Your task to perform on an android device: open app "Indeed Job Search" (install if not already installed) Image 0: 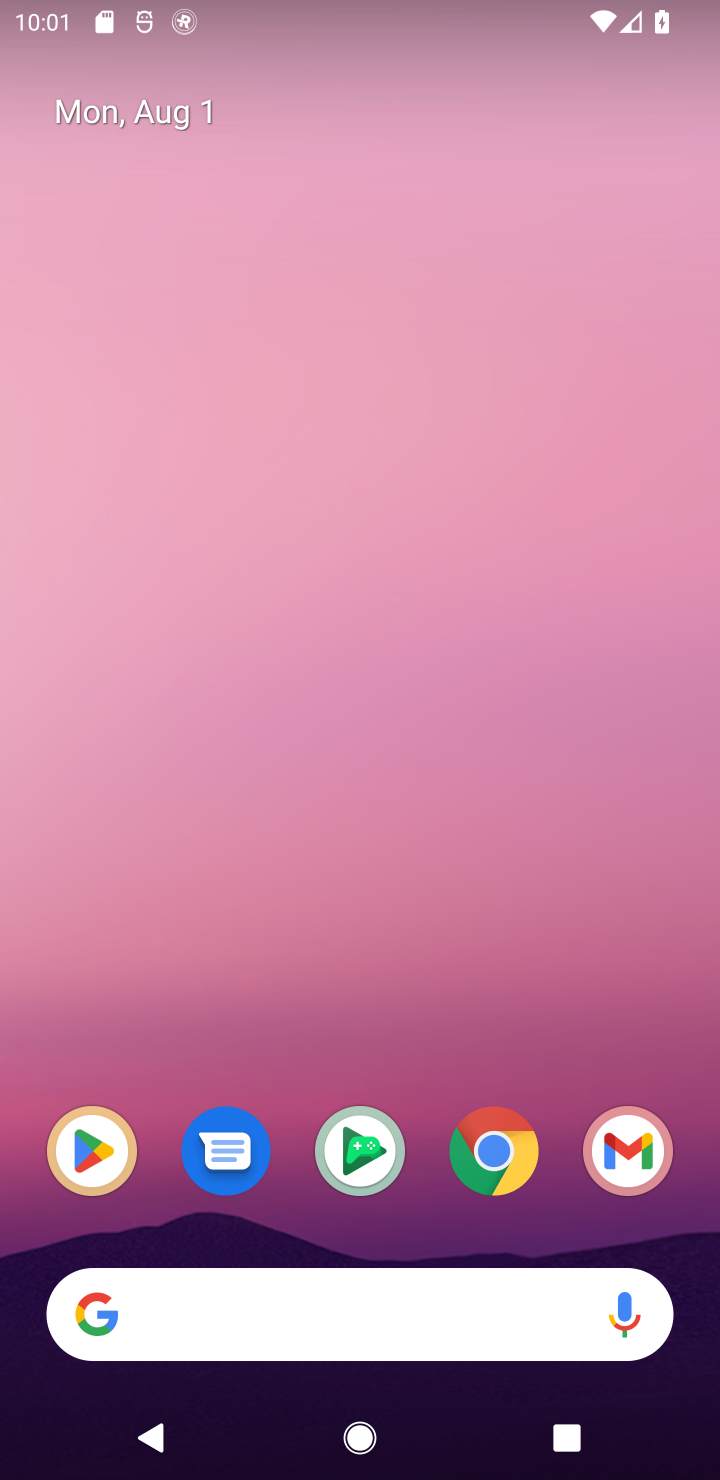
Step 0: click (104, 1154)
Your task to perform on an android device: open app "Indeed Job Search" (install if not already installed) Image 1: 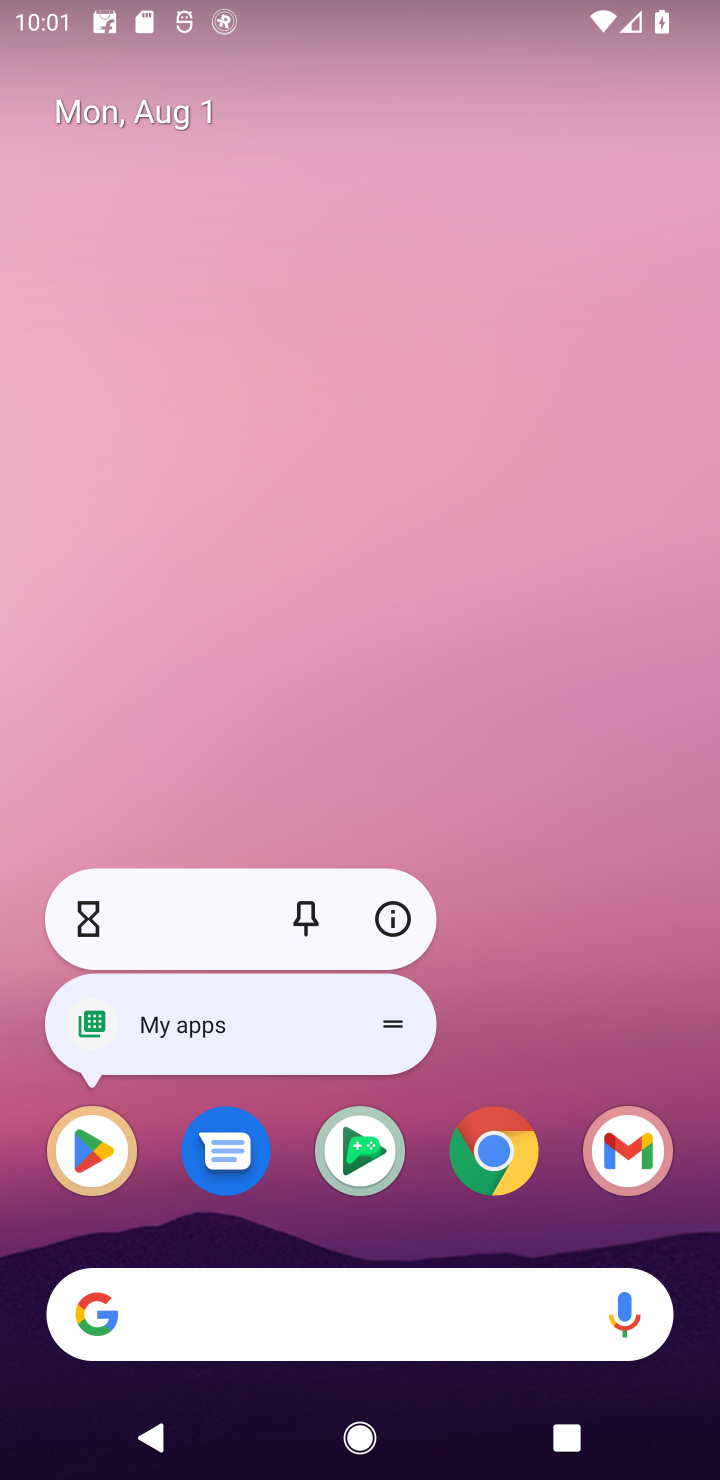
Step 1: click (104, 1154)
Your task to perform on an android device: open app "Indeed Job Search" (install if not already installed) Image 2: 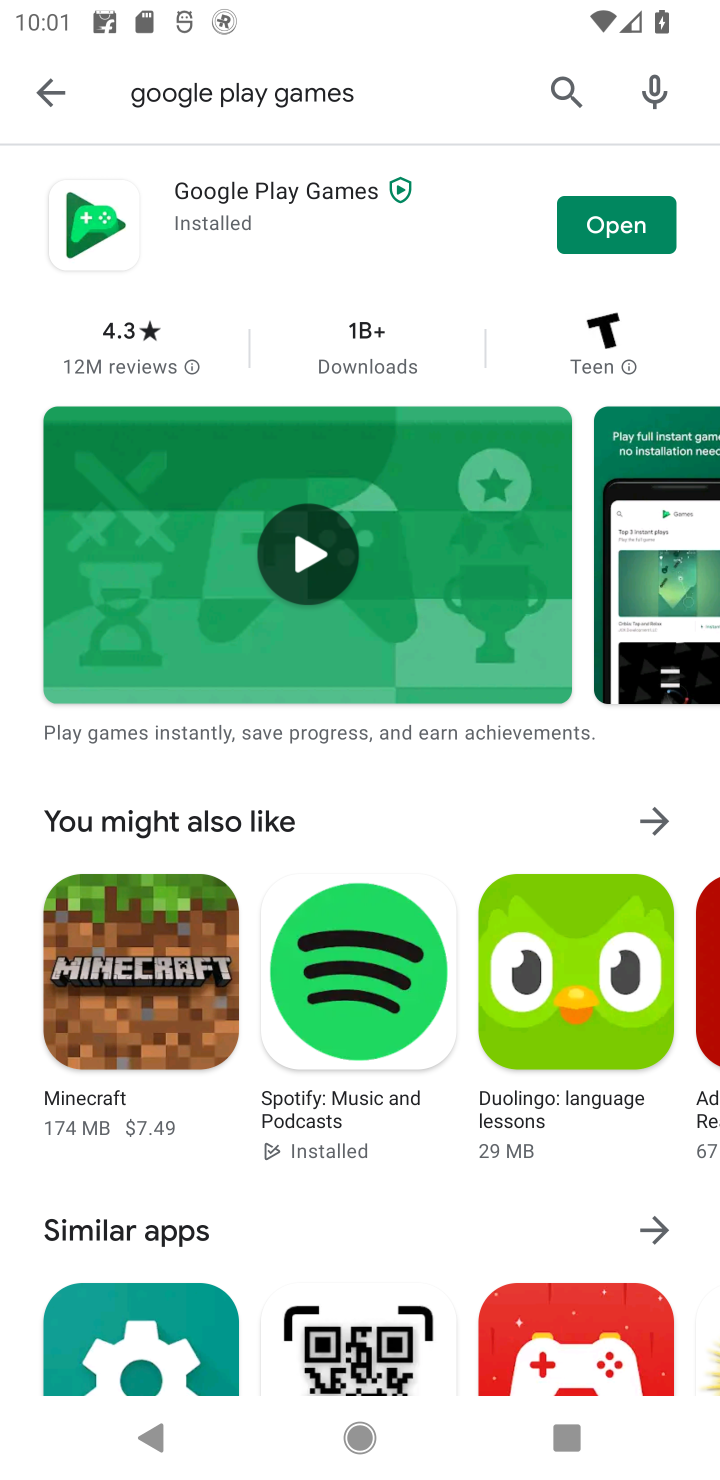
Step 2: click (568, 82)
Your task to perform on an android device: open app "Indeed Job Search" (install if not already installed) Image 3: 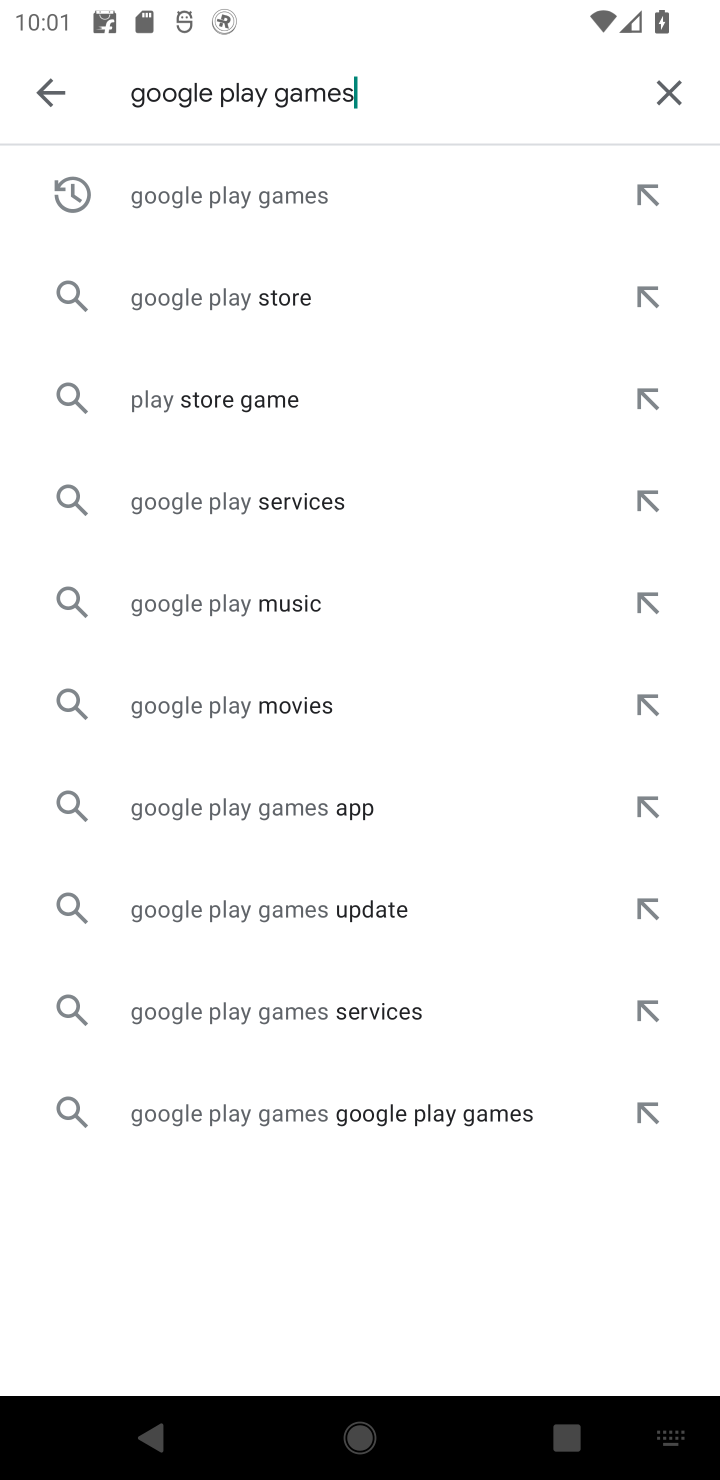
Step 3: click (656, 74)
Your task to perform on an android device: open app "Indeed Job Search" (install if not already installed) Image 4: 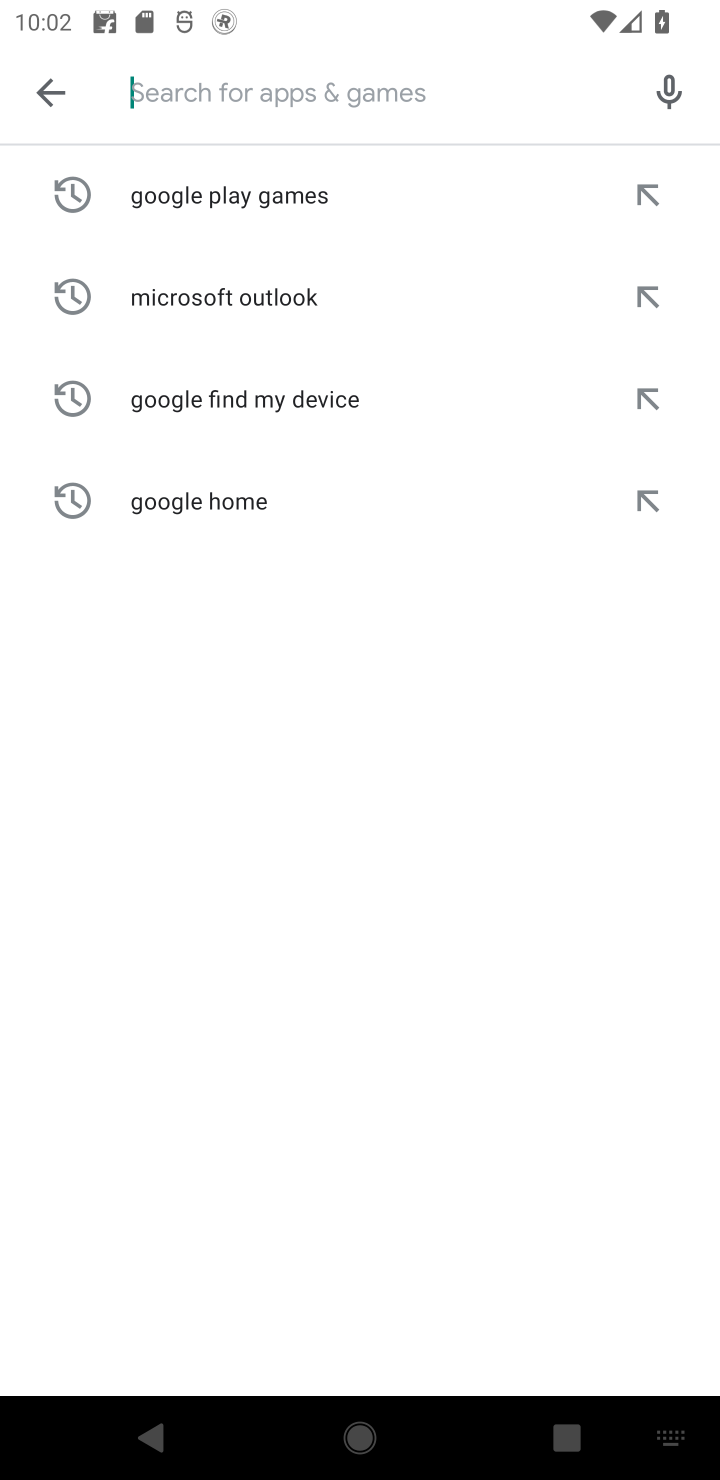
Step 4: type "Indeed Job Search"
Your task to perform on an android device: open app "Indeed Job Search" (install if not already installed) Image 5: 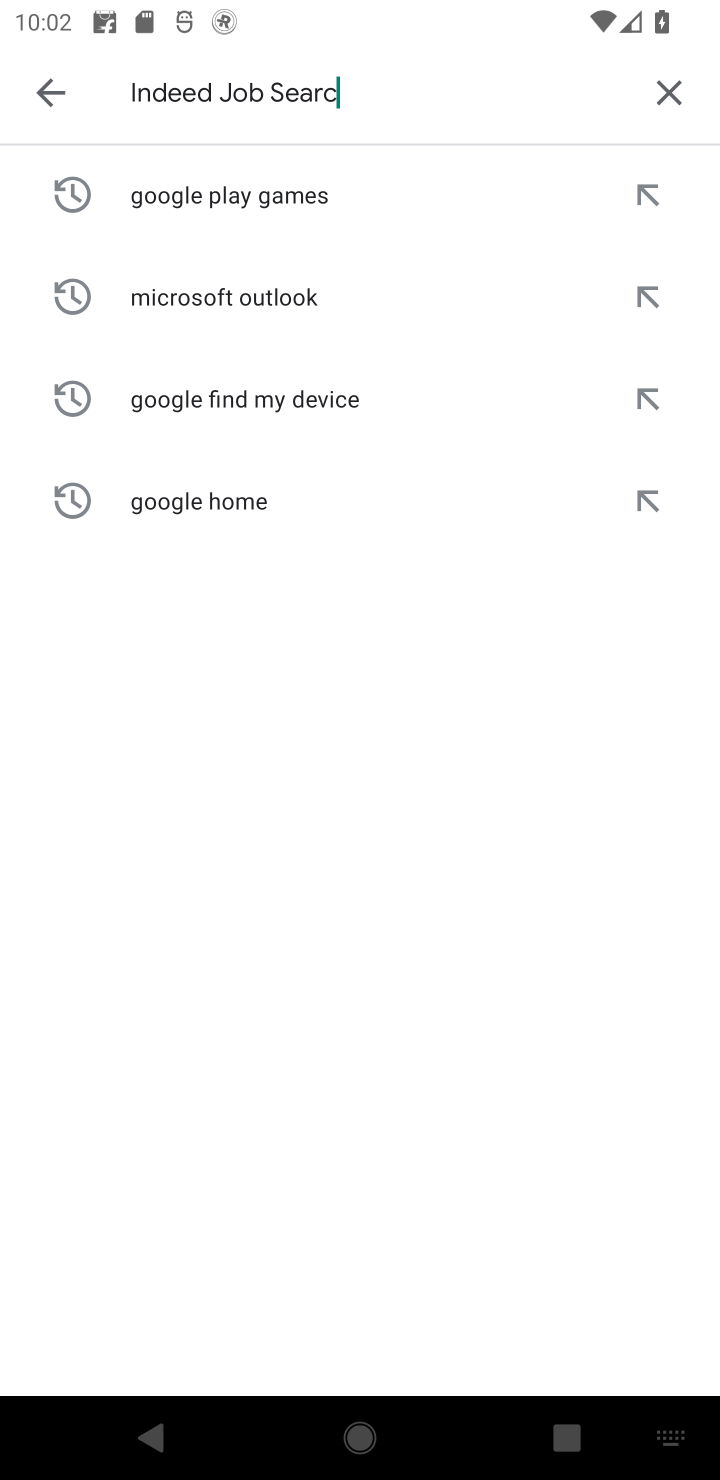
Step 5: type ""
Your task to perform on an android device: open app "Indeed Job Search" (install if not already installed) Image 6: 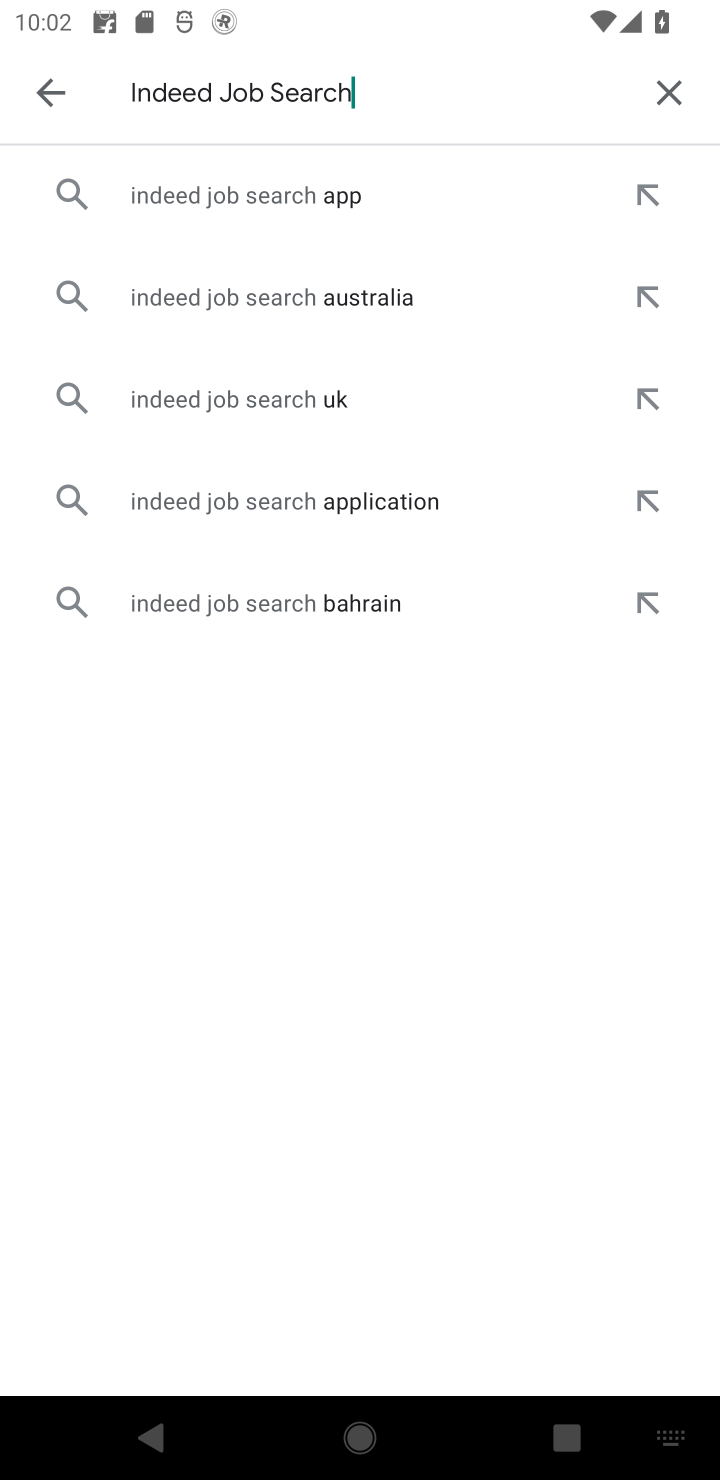
Step 6: click (341, 215)
Your task to perform on an android device: open app "Indeed Job Search" (install if not already installed) Image 7: 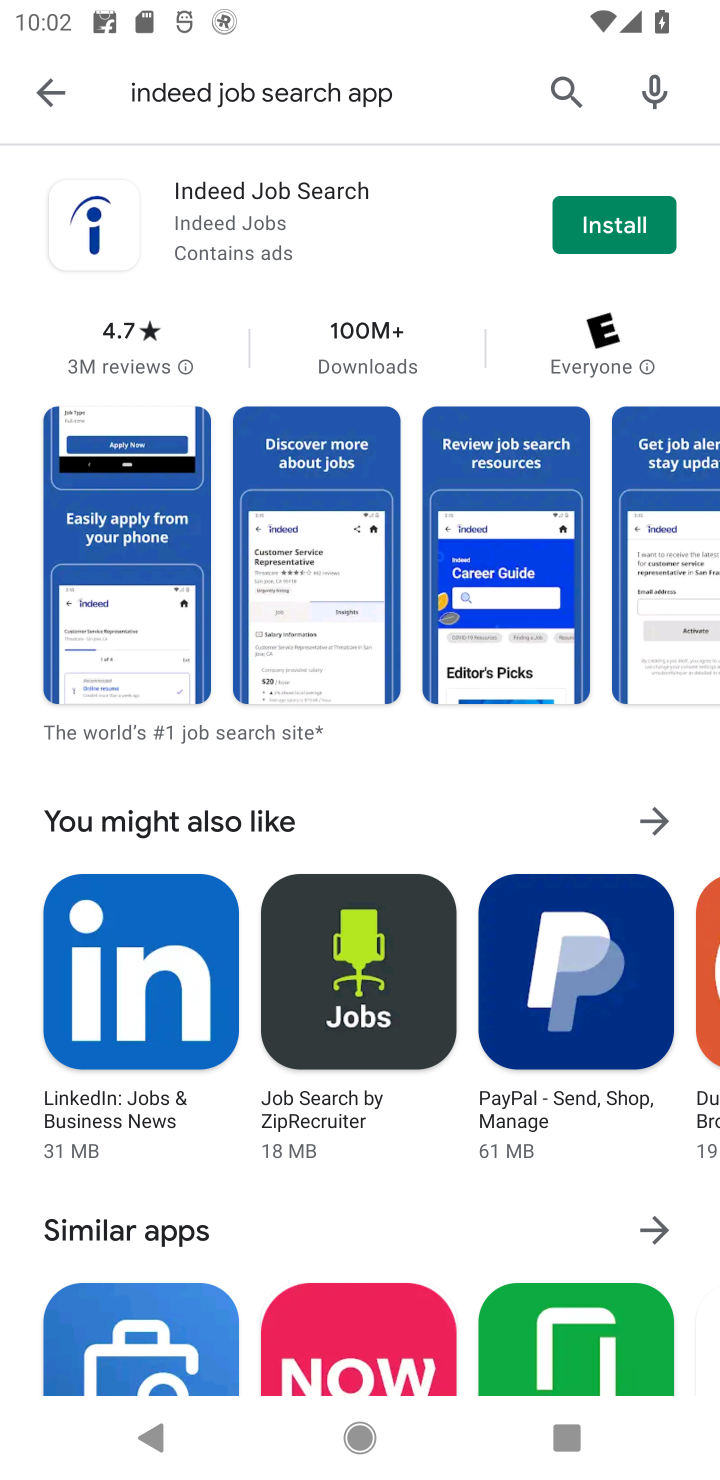
Step 7: click (585, 237)
Your task to perform on an android device: open app "Indeed Job Search" (install if not already installed) Image 8: 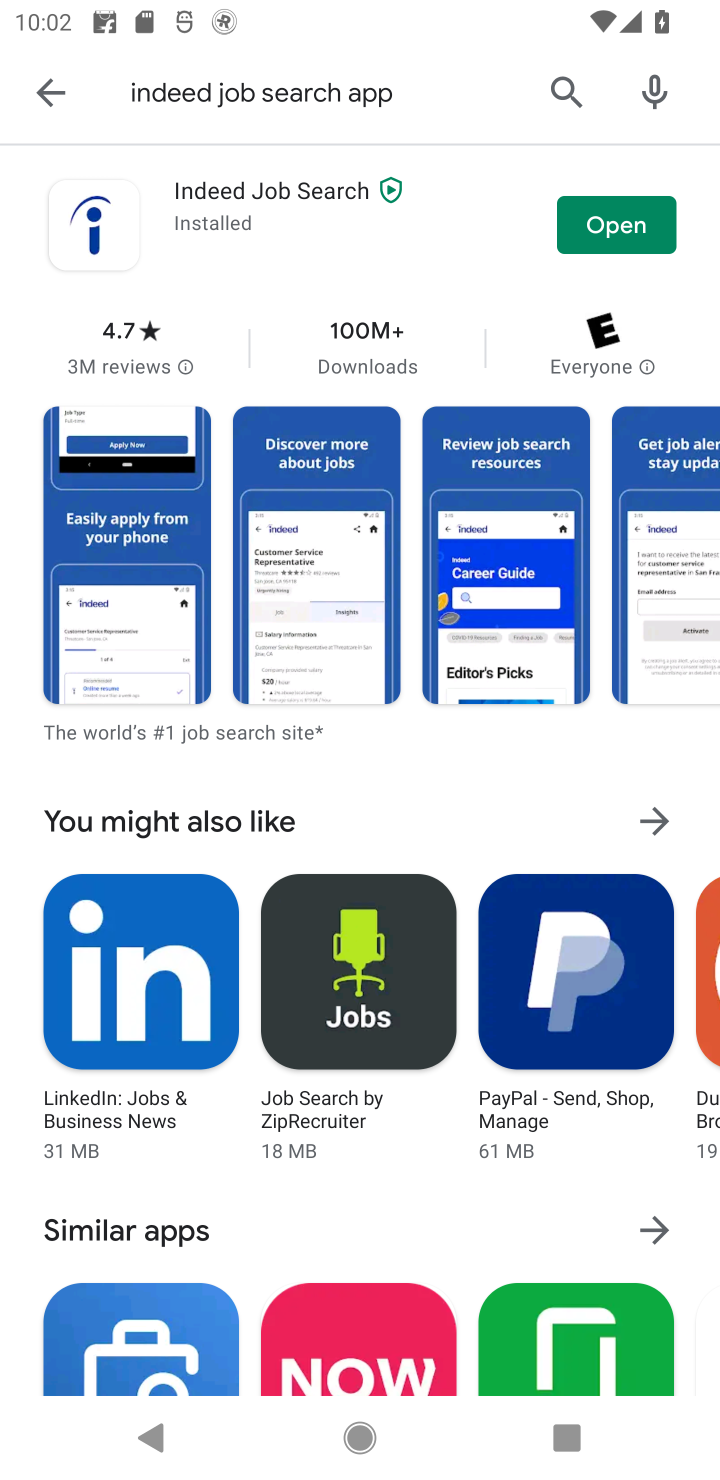
Step 8: click (620, 231)
Your task to perform on an android device: open app "Indeed Job Search" (install if not already installed) Image 9: 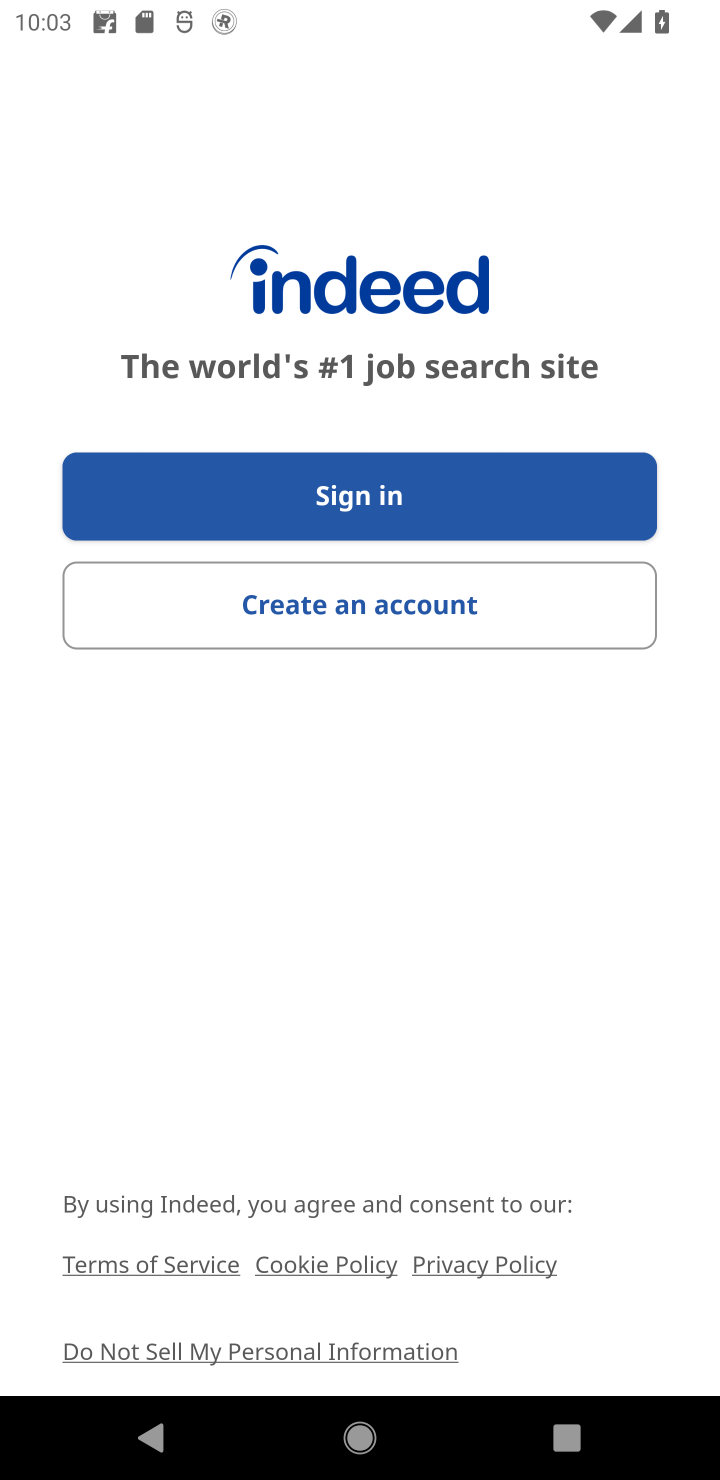
Step 9: task complete